Your task to perform on an android device: uninstall "DoorDash - Food Delivery" Image 0: 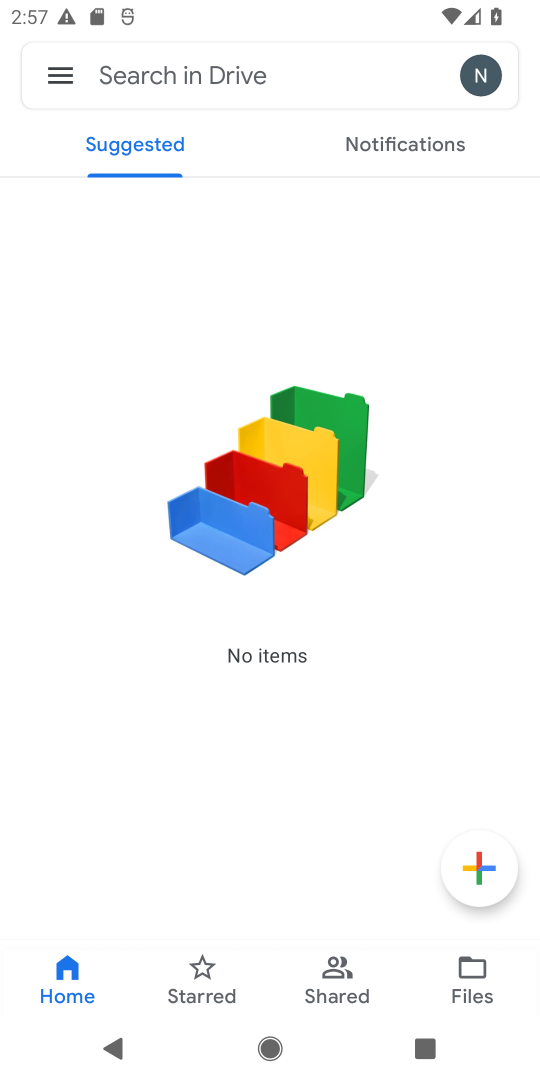
Step 0: click (227, 62)
Your task to perform on an android device: uninstall "DoorDash - Food Delivery" Image 1: 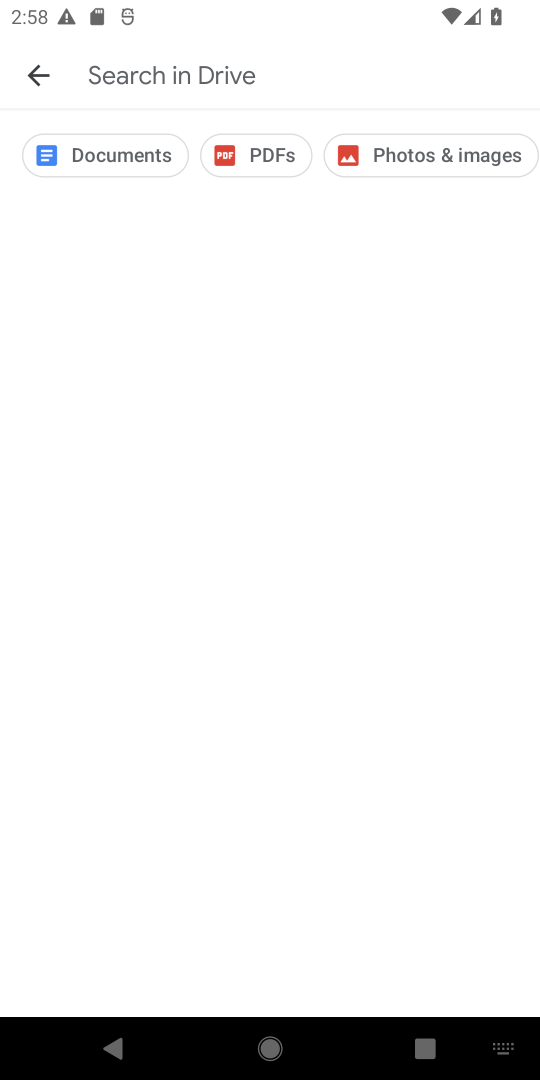
Step 1: press back button
Your task to perform on an android device: uninstall "DoorDash - Food Delivery" Image 2: 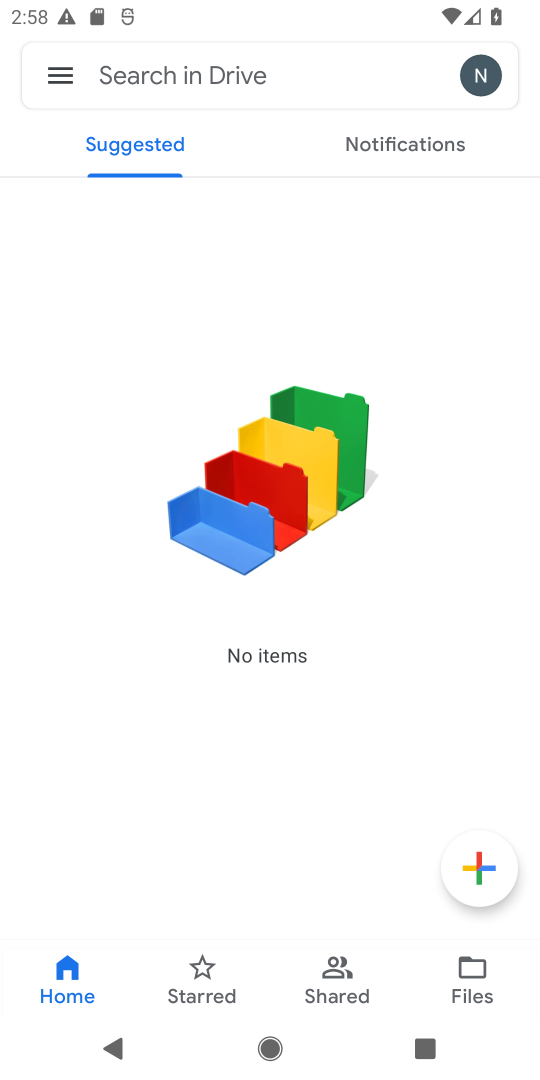
Step 2: press back button
Your task to perform on an android device: uninstall "DoorDash - Food Delivery" Image 3: 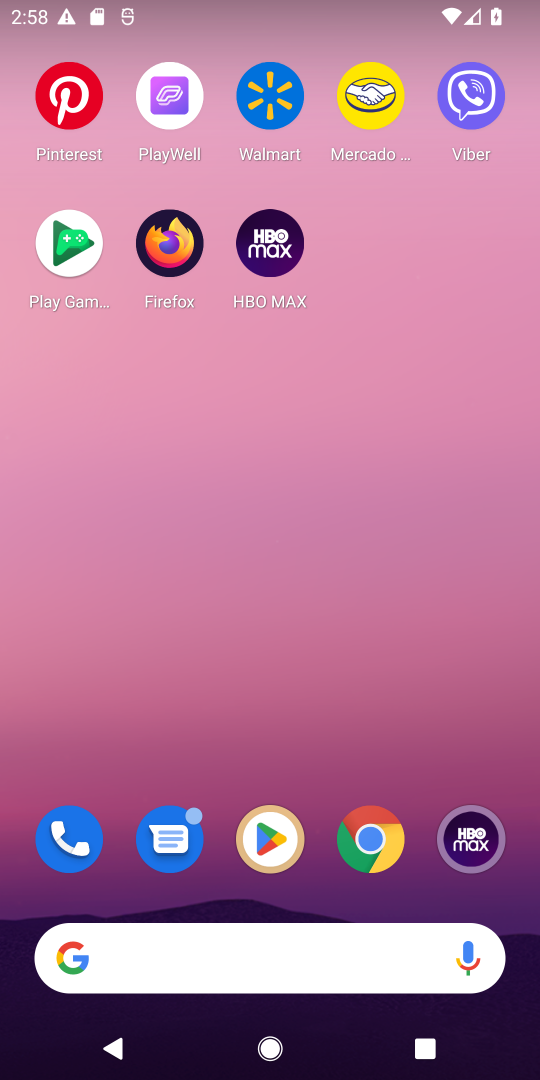
Step 3: click (264, 824)
Your task to perform on an android device: uninstall "DoorDash - Food Delivery" Image 4: 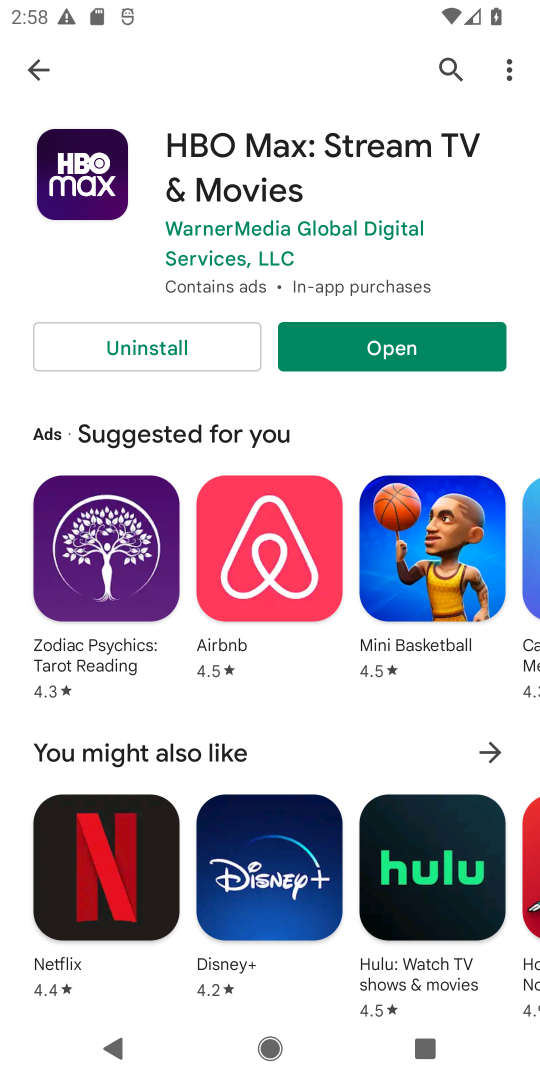
Step 4: click (11, 69)
Your task to perform on an android device: uninstall "DoorDash - Food Delivery" Image 5: 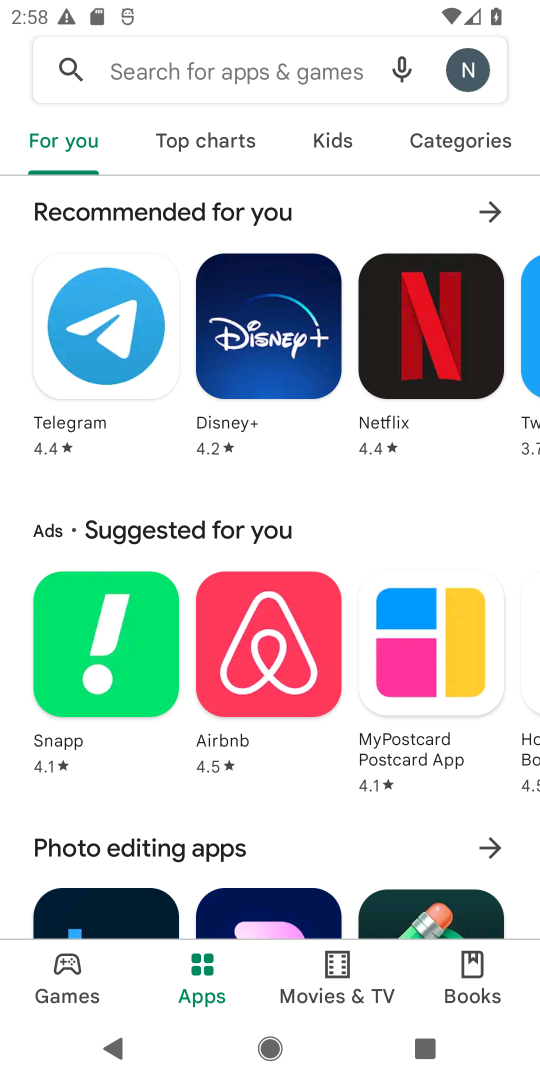
Step 5: click (216, 80)
Your task to perform on an android device: uninstall "DoorDash - Food Delivery" Image 6: 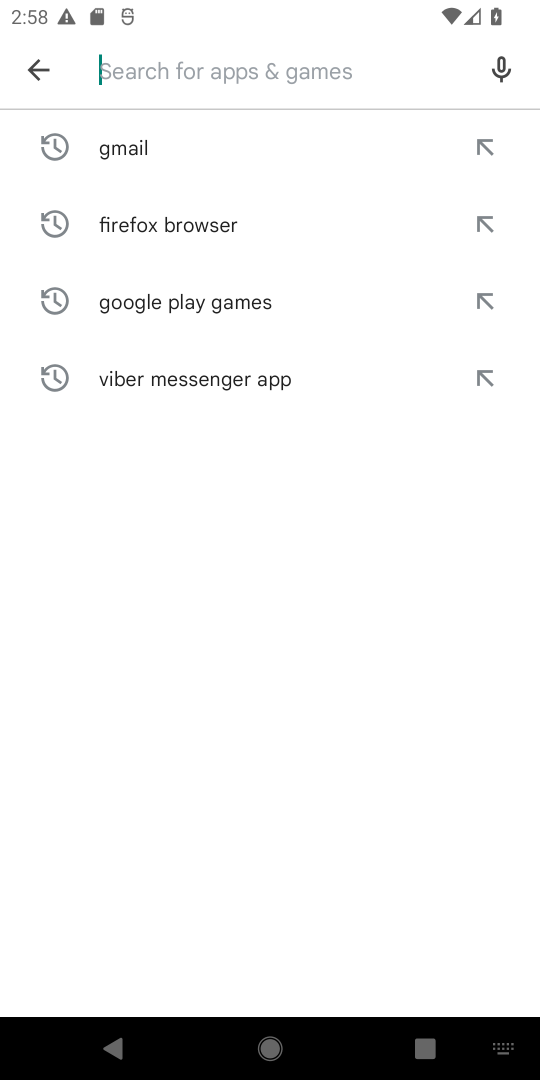
Step 6: drag from (336, 1072) to (392, 1078)
Your task to perform on an android device: uninstall "DoorDash - Food Delivery" Image 7: 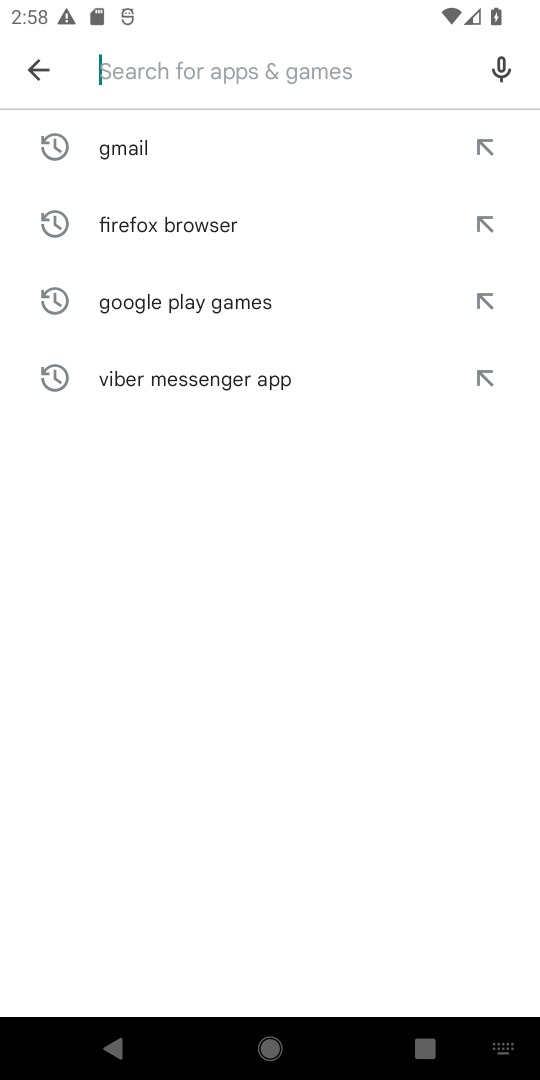
Step 7: type "DoorDash - Food Delivery"
Your task to perform on an android device: uninstall "DoorDash - Food Delivery" Image 8: 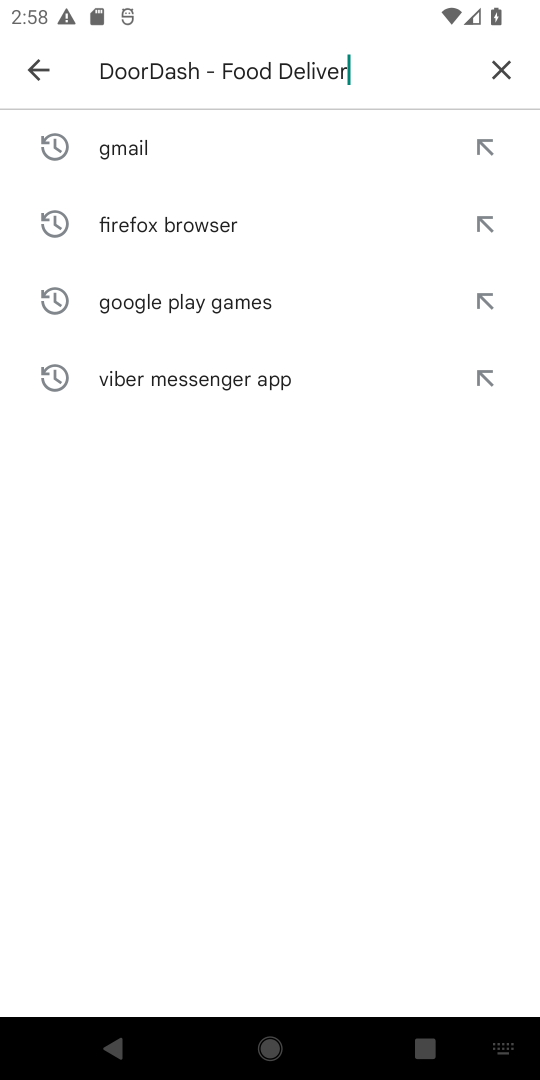
Step 8: type ""
Your task to perform on an android device: uninstall "DoorDash - Food Delivery" Image 9: 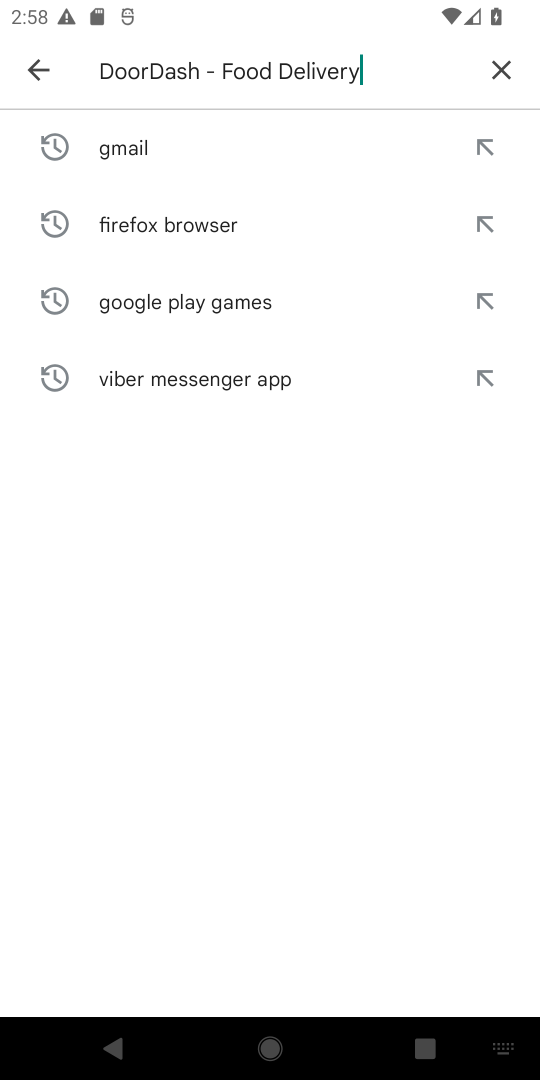
Step 9: drag from (392, 1078) to (342, 387)
Your task to perform on an android device: uninstall "DoorDash - Food Delivery" Image 10: 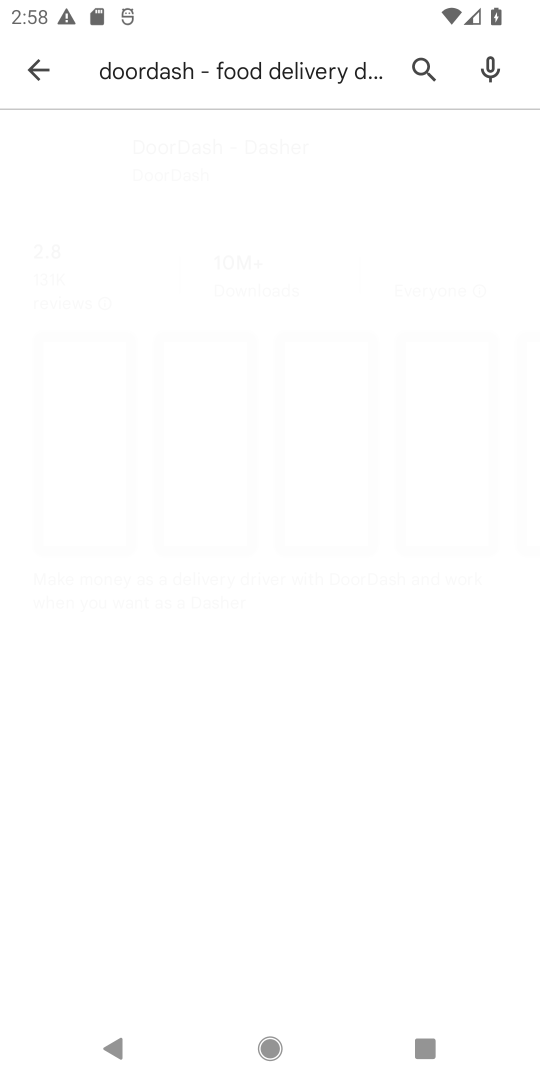
Step 10: click (185, 148)
Your task to perform on an android device: uninstall "DoorDash - Food Delivery" Image 11: 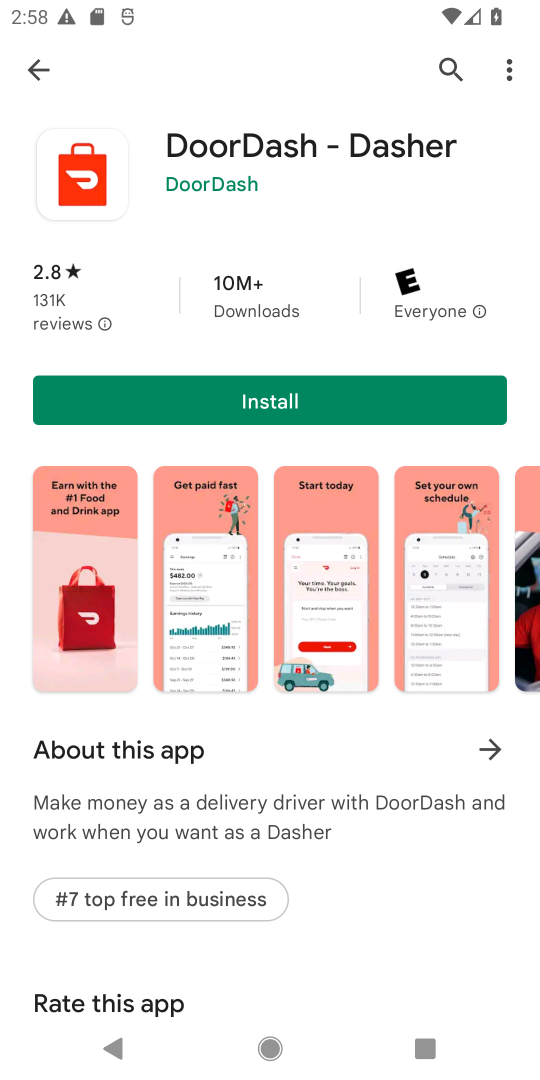
Step 11: task complete